Your task to perform on an android device: Check the weather Image 0: 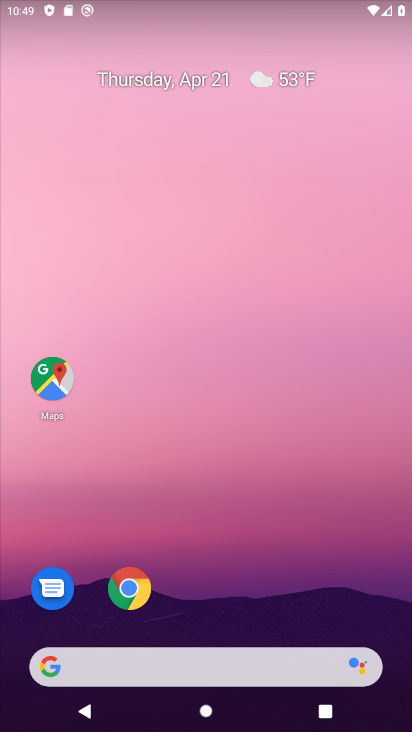
Step 0: click (307, 72)
Your task to perform on an android device: Check the weather Image 1: 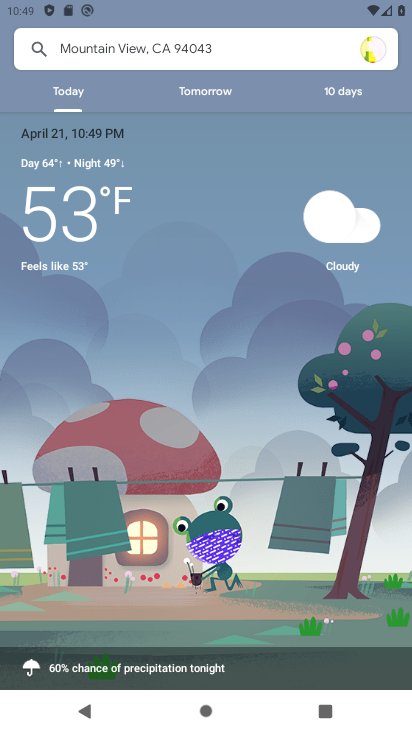
Step 1: task complete